Your task to perform on an android device: Go to Reddit.com Image 0: 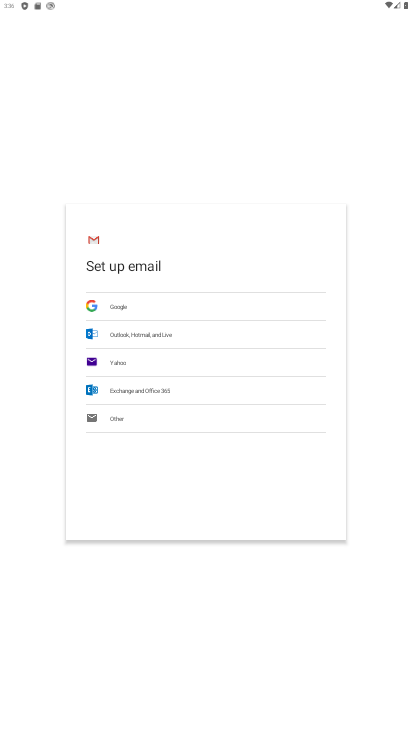
Step 0: press home button
Your task to perform on an android device: Go to Reddit.com Image 1: 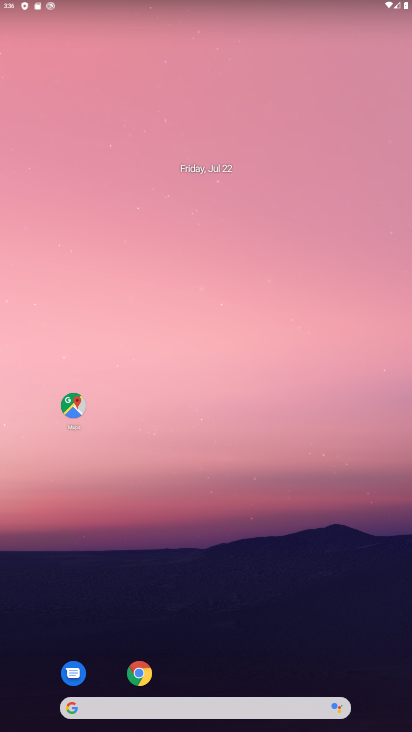
Step 1: click (140, 676)
Your task to perform on an android device: Go to Reddit.com Image 2: 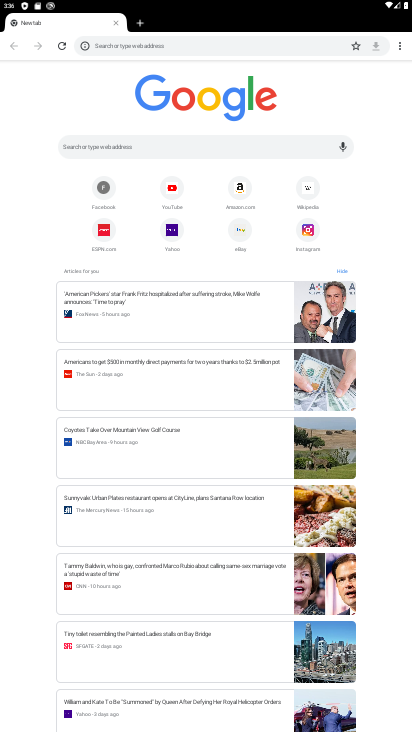
Step 2: click (206, 142)
Your task to perform on an android device: Go to Reddit.com Image 3: 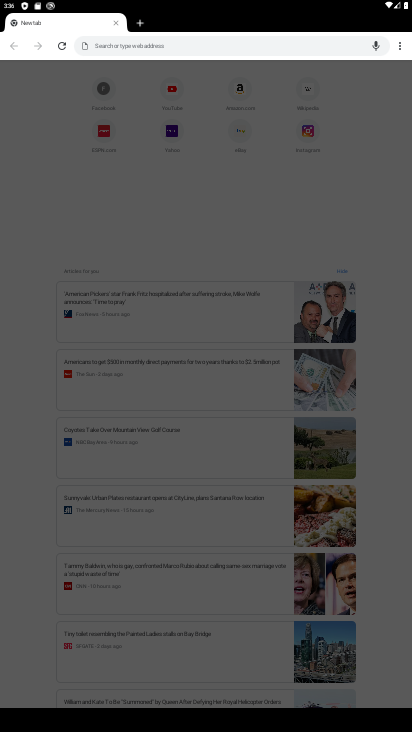
Step 3: type "www.reddit.com"
Your task to perform on an android device: Go to Reddit.com Image 4: 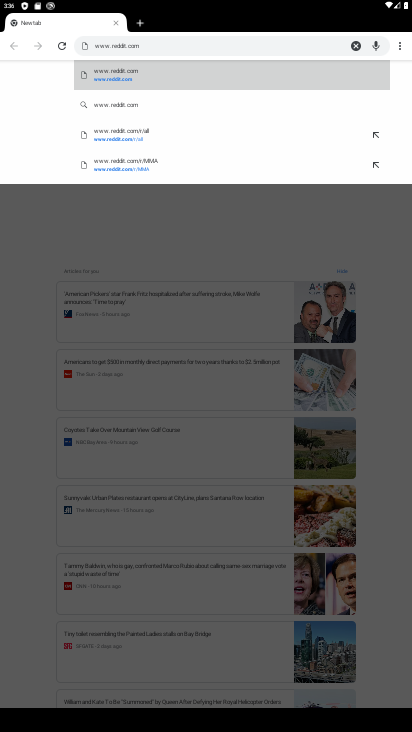
Step 4: click (111, 68)
Your task to perform on an android device: Go to Reddit.com Image 5: 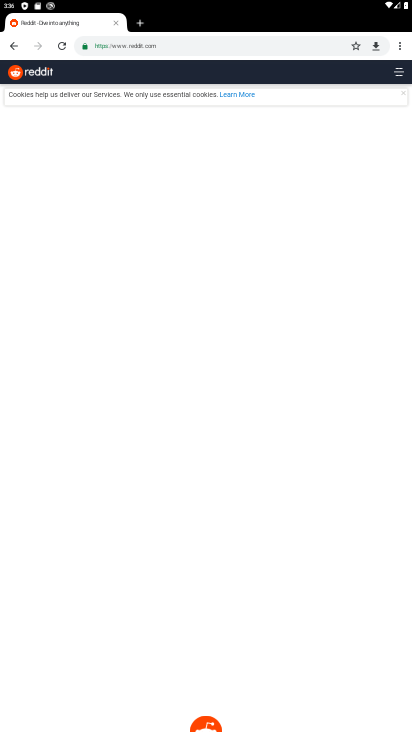
Step 5: task complete